Your task to perform on an android device: open chrome privacy settings Image 0: 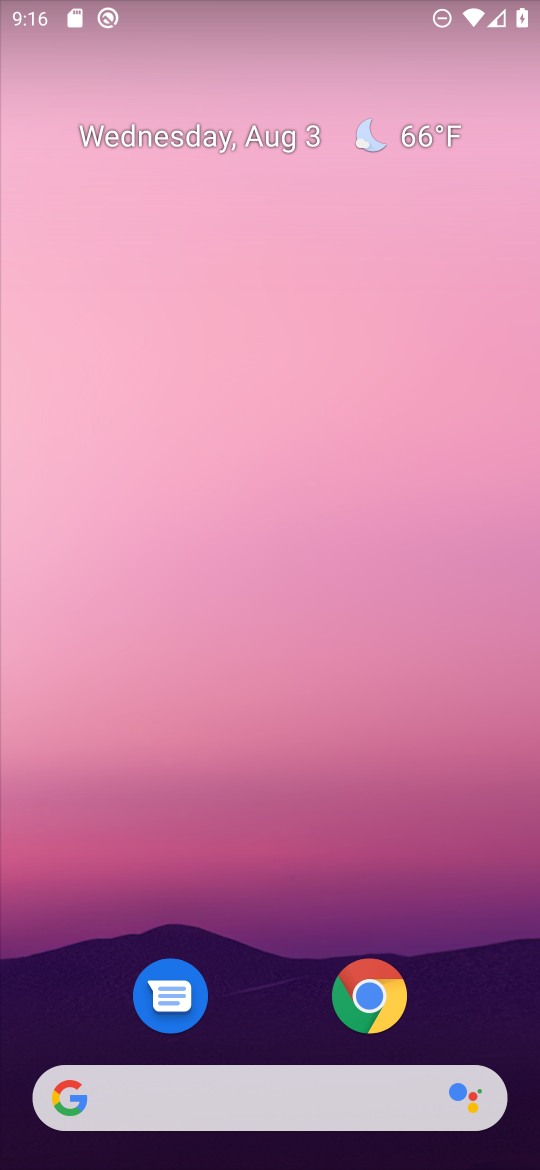
Step 0: click (363, 994)
Your task to perform on an android device: open chrome privacy settings Image 1: 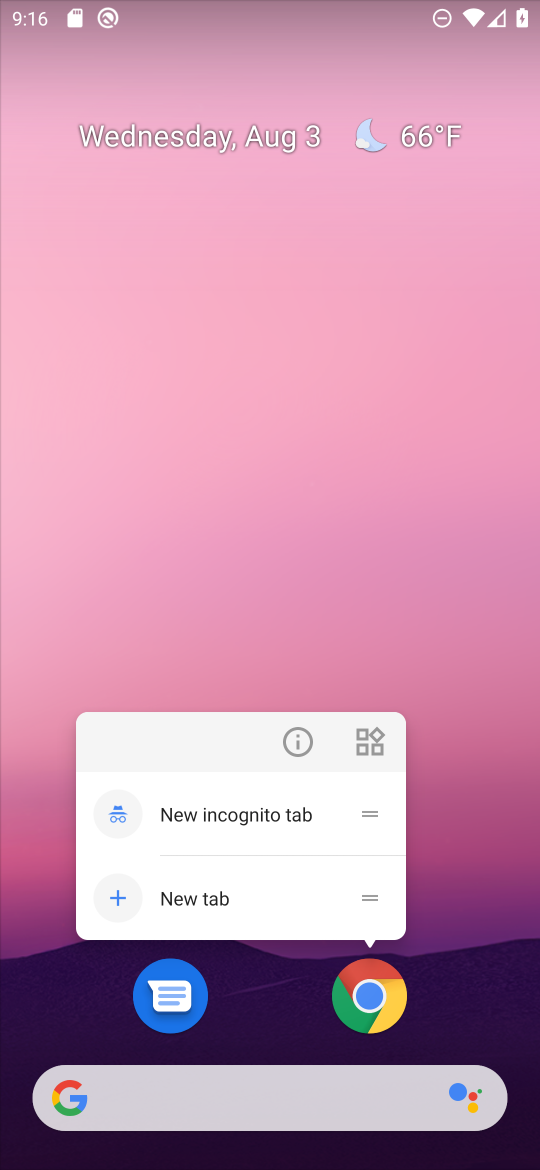
Step 1: click (363, 994)
Your task to perform on an android device: open chrome privacy settings Image 2: 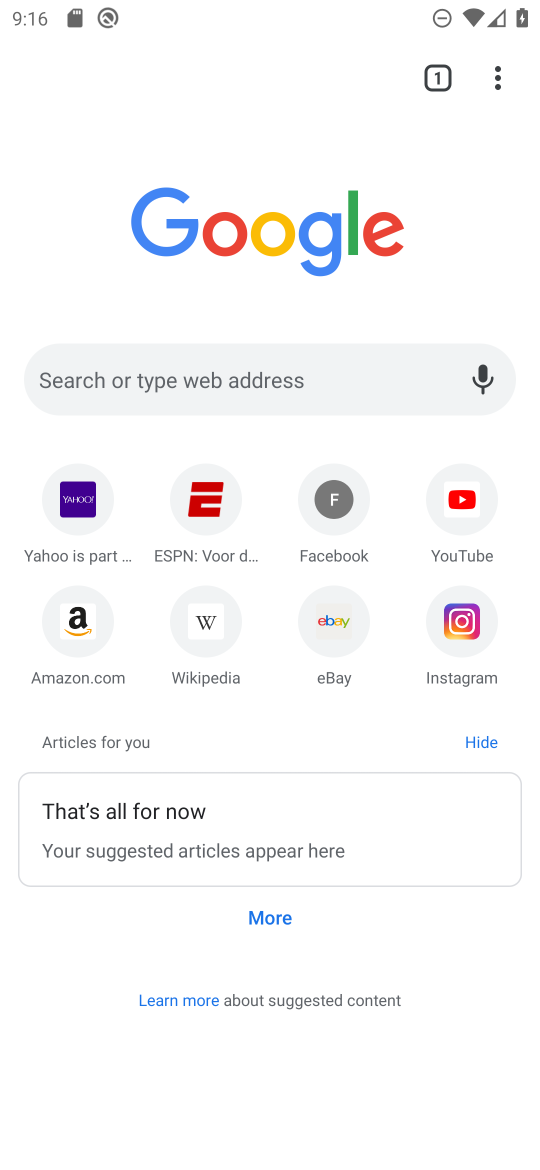
Step 2: click (498, 90)
Your task to perform on an android device: open chrome privacy settings Image 3: 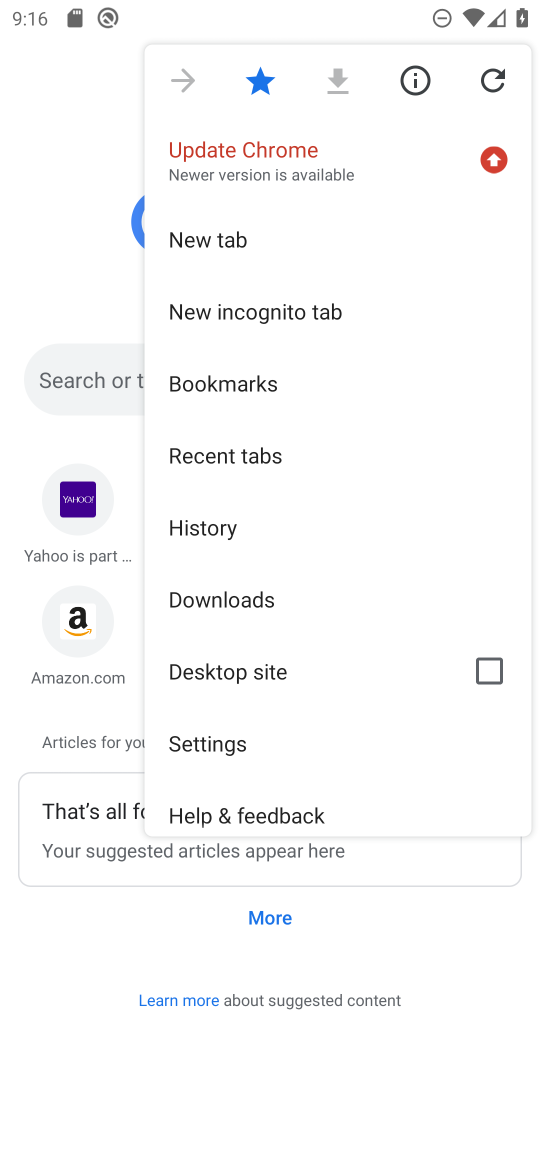
Step 3: click (215, 744)
Your task to perform on an android device: open chrome privacy settings Image 4: 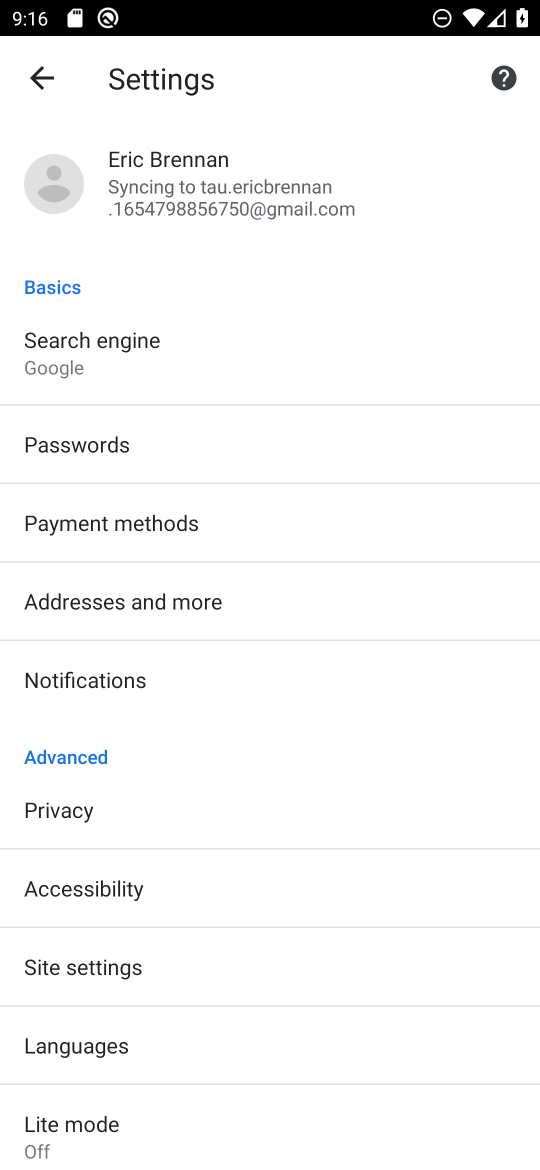
Step 4: click (102, 808)
Your task to perform on an android device: open chrome privacy settings Image 5: 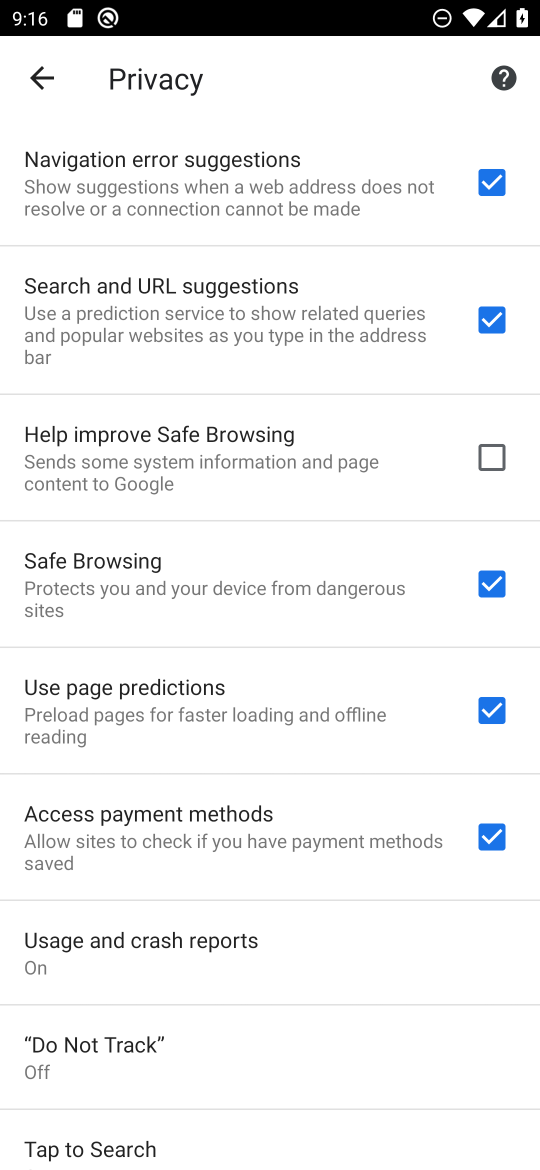
Step 5: task complete